Your task to perform on an android device: Go to notification settings Image 0: 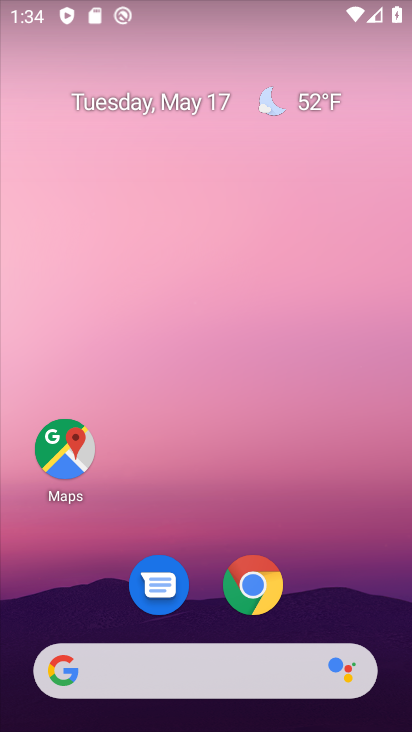
Step 0: drag from (307, 494) to (294, 56)
Your task to perform on an android device: Go to notification settings Image 1: 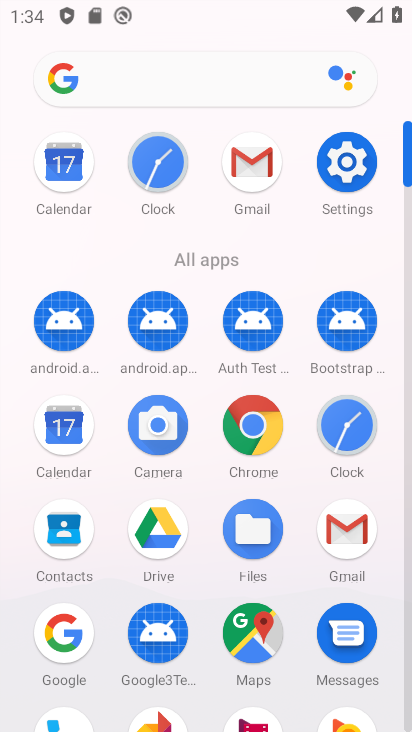
Step 1: click (342, 153)
Your task to perform on an android device: Go to notification settings Image 2: 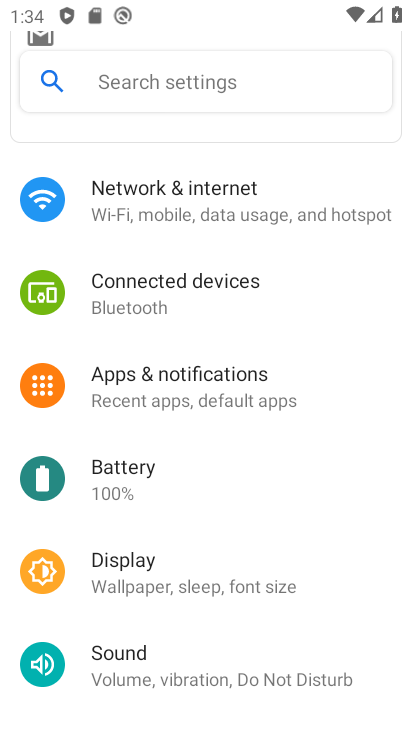
Step 2: click (252, 393)
Your task to perform on an android device: Go to notification settings Image 3: 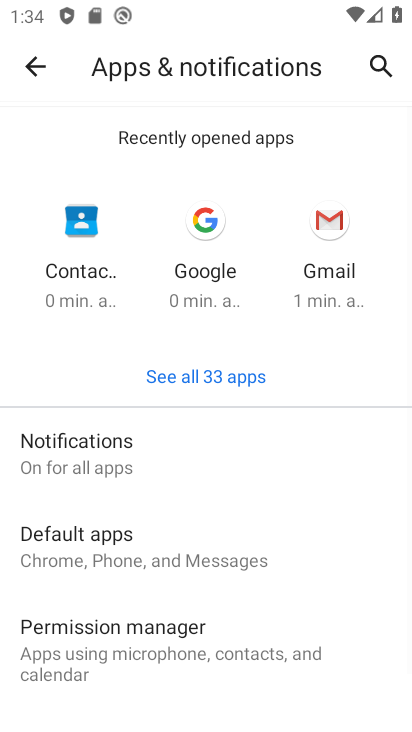
Step 3: click (187, 446)
Your task to perform on an android device: Go to notification settings Image 4: 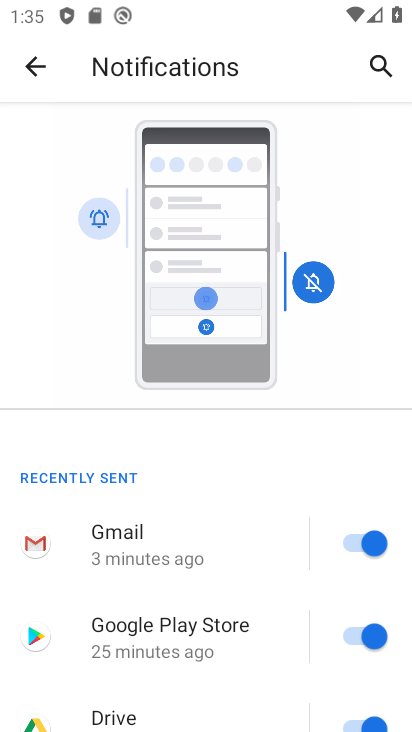
Step 4: task complete